Your task to perform on an android device: What is the recent news? Image 0: 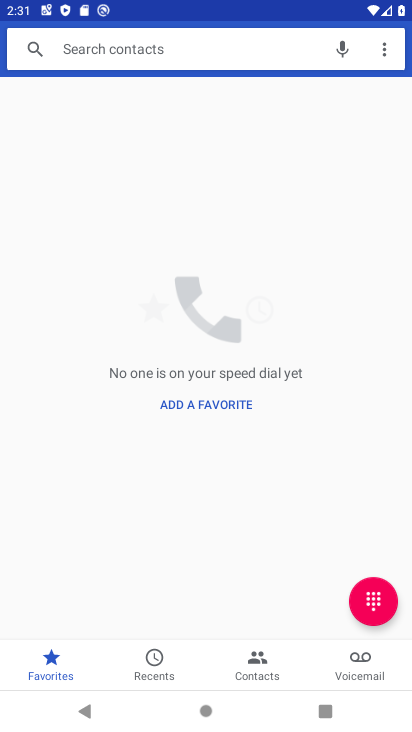
Step 0: click (82, 714)
Your task to perform on an android device: What is the recent news? Image 1: 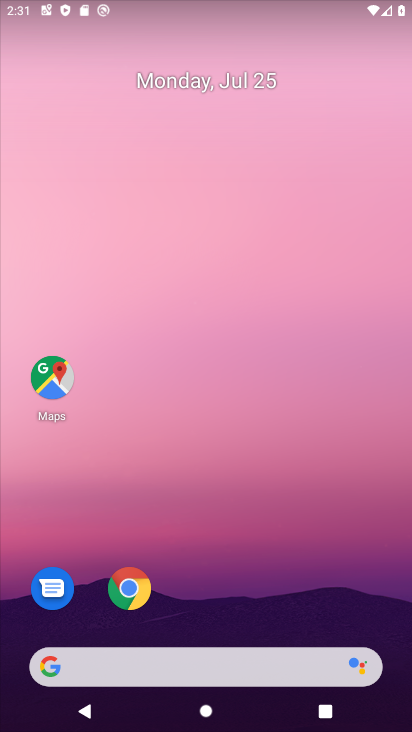
Step 1: drag from (194, 620) to (294, 54)
Your task to perform on an android device: What is the recent news? Image 2: 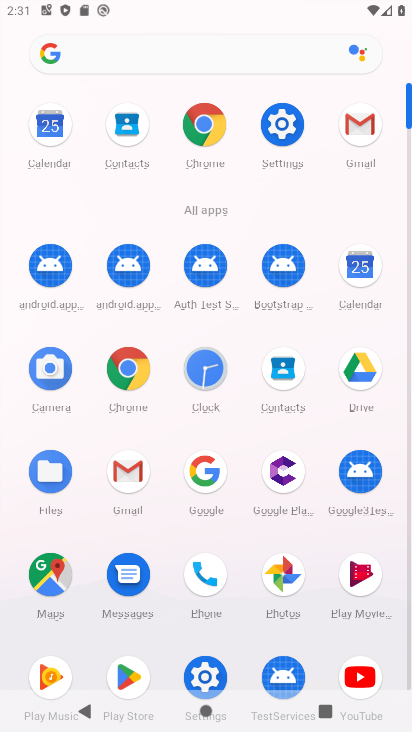
Step 2: click (206, 477)
Your task to perform on an android device: What is the recent news? Image 3: 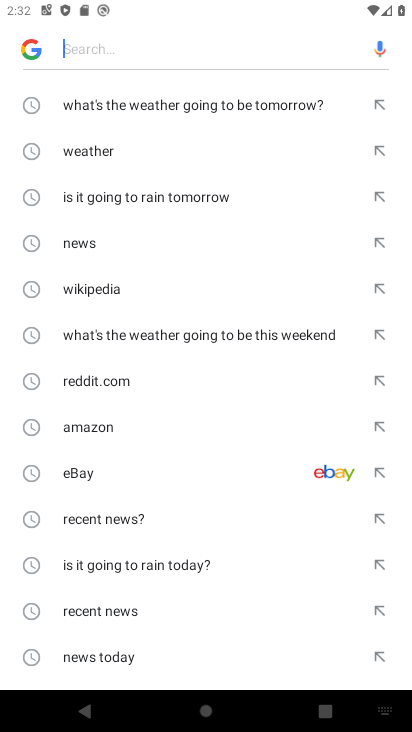
Step 3: click (106, 247)
Your task to perform on an android device: What is the recent news? Image 4: 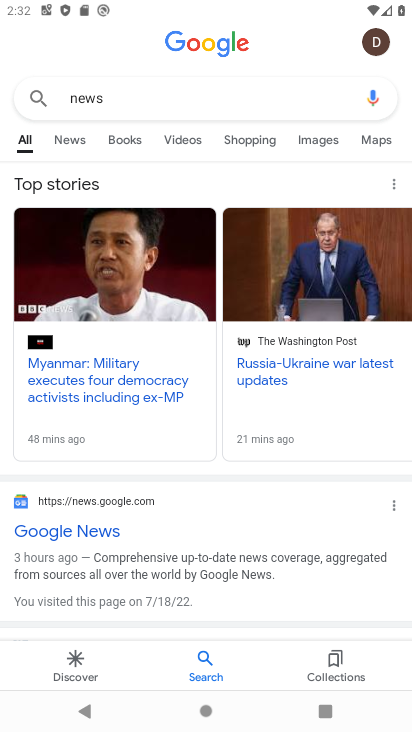
Step 4: click (66, 139)
Your task to perform on an android device: What is the recent news? Image 5: 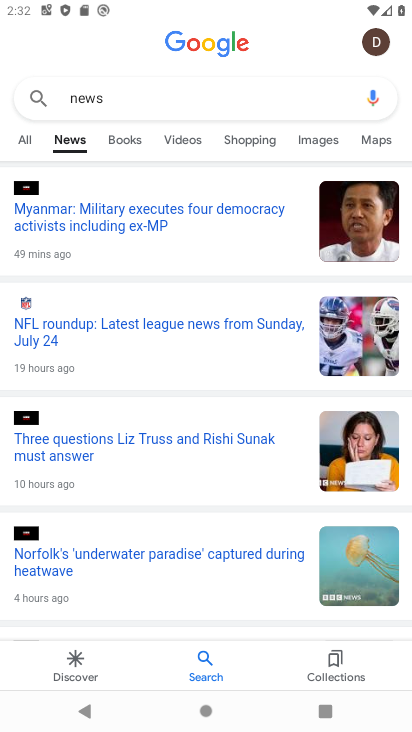
Step 5: task complete